Your task to perform on an android device: set the stopwatch Image 0: 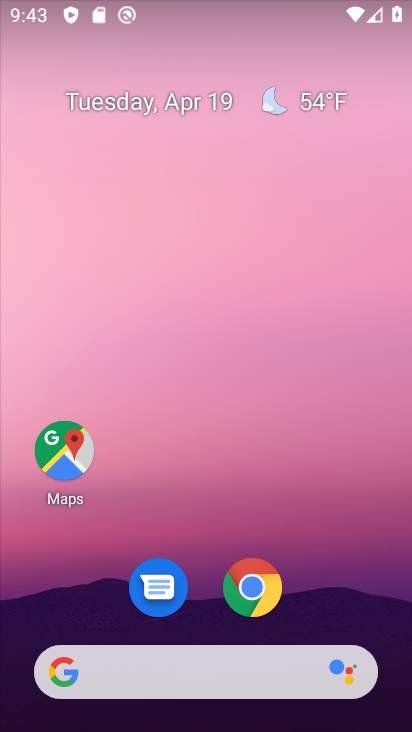
Step 0: drag from (367, 69) to (371, 24)
Your task to perform on an android device: set the stopwatch Image 1: 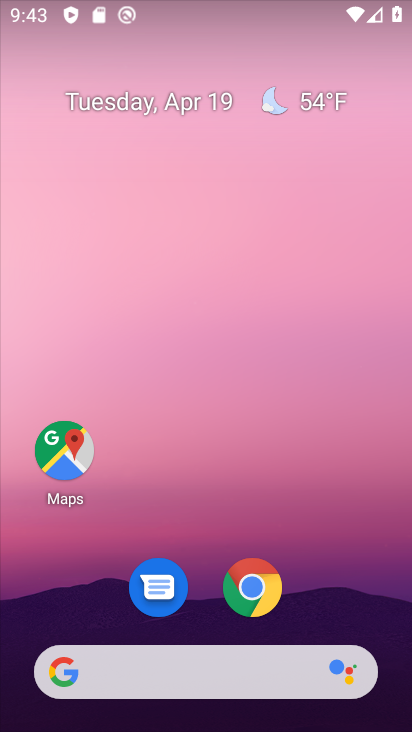
Step 1: drag from (310, 577) to (334, 30)
Your task to perform on an android device: set the stopwatch Image 2: 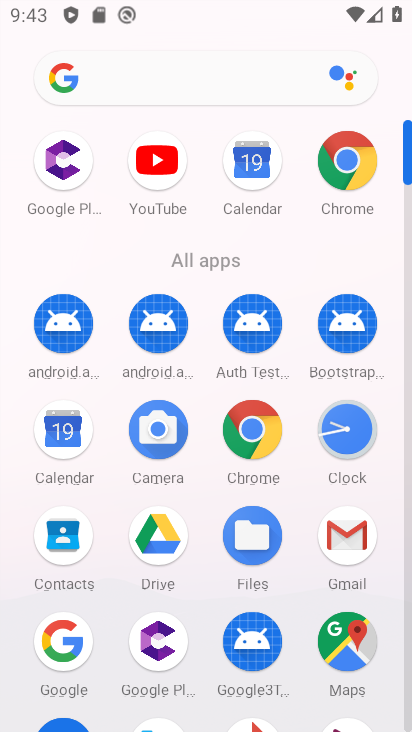
Step 2: click (355, 455)
Your task to perform on an android device: set the stopwatch Image 3: 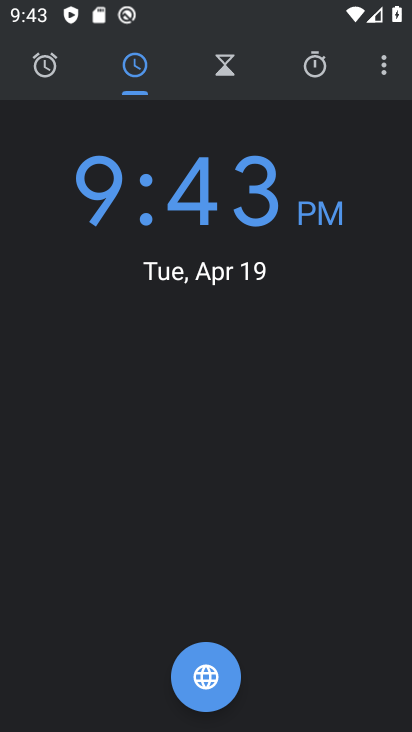
Step 3: click (313, 66)
Your task to perform on an android device: set the stopwatch Image 4: 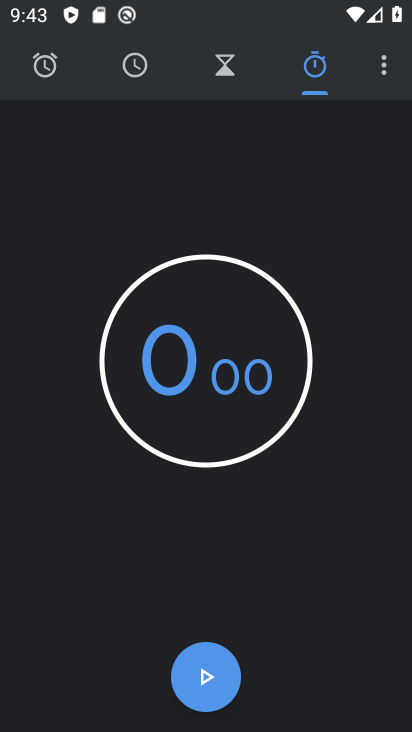
Step 4: click (212, 671)
Your task to perform on an android device: set the stopwatch Image 5: 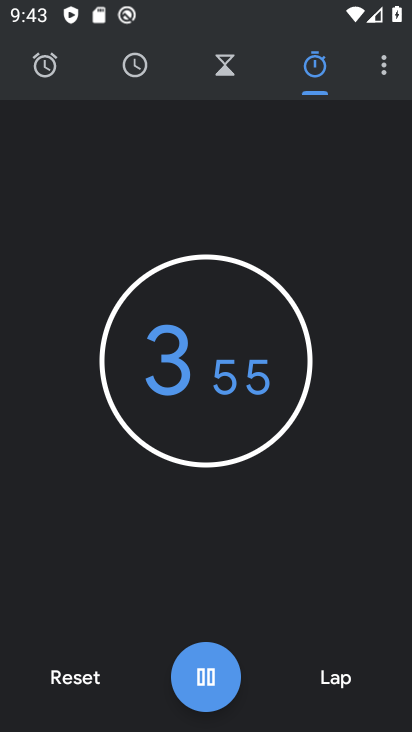
Step 5: task complete